Your task to perform on an android device: Open Google Maps Image 0: 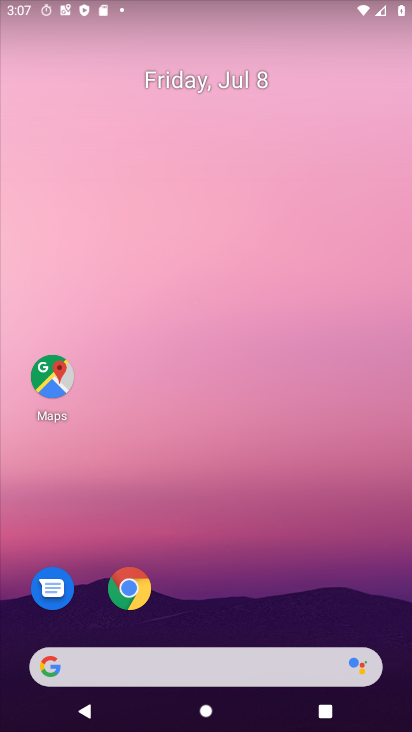
Step 0: press home button
Your task to perform on an android device: Open Google Maps Image 1: 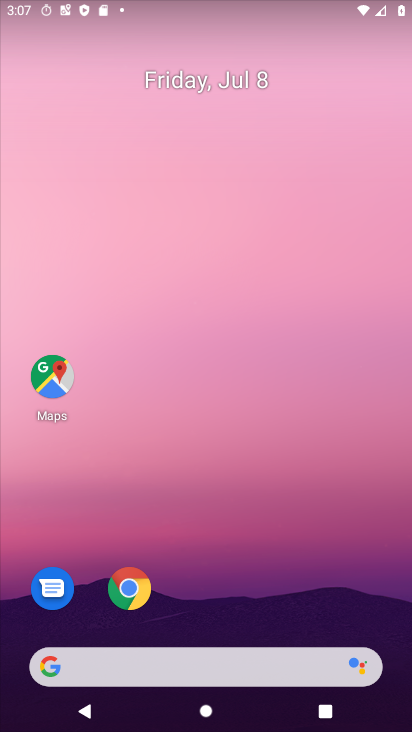
Step 1: click (58, 377)
Your task to perform on an android device: Open Google Maps Image 2: 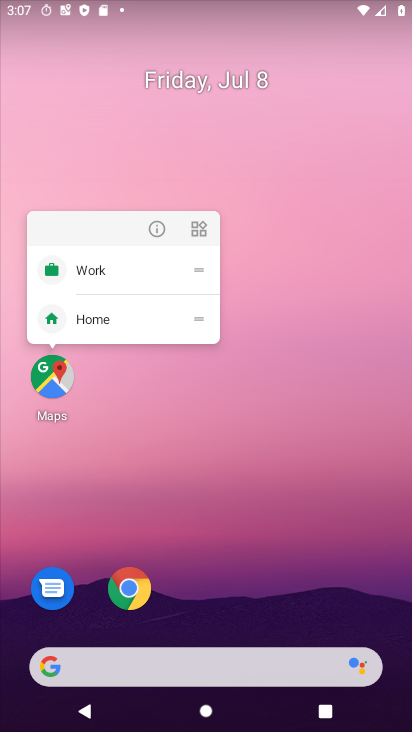
Step 2: click (60, 380)
Your task to perform on an android device: Open Google Maps Image 3: 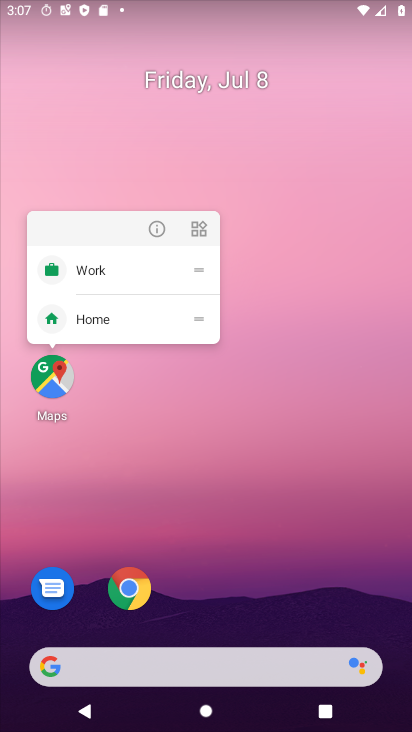
Step 3: click (60, 379)
Your task to perform on an android device: Open Google Maps Image 4: 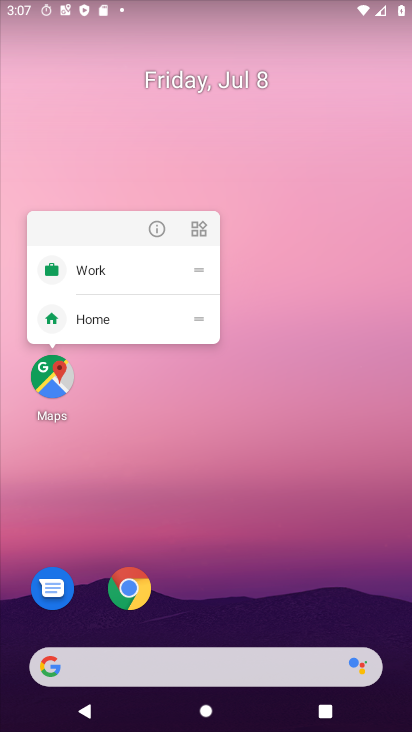
Step 4: click (52, 383)
Your task to perform on an android device: Open Google Maps Image 5: 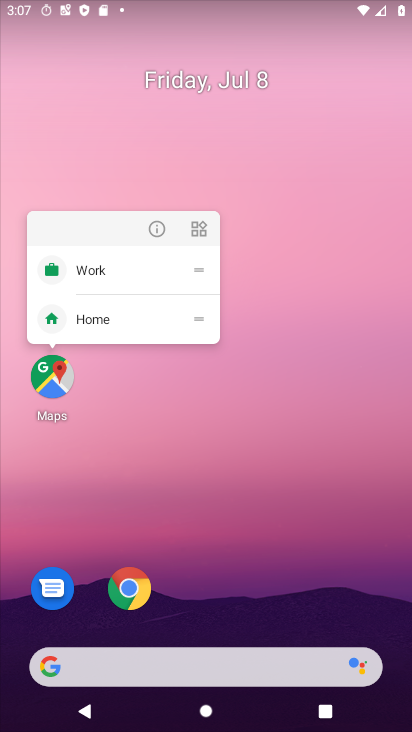
Step 5: click (210, 602)
Your task to perform on an android device: Open Google Maps Image 6: 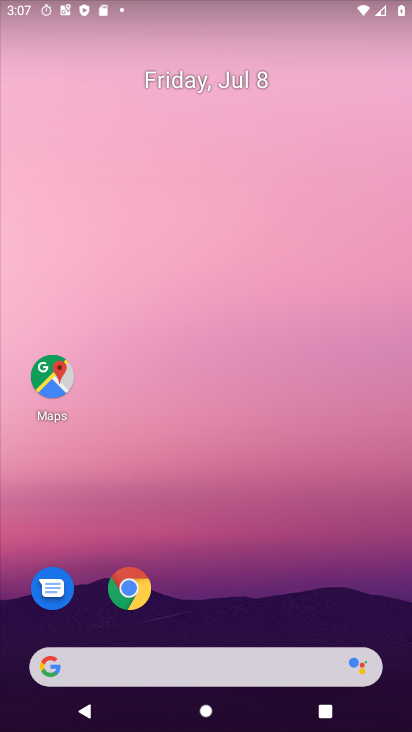
Step 6: drag from (266, 589) to (269, 24)
Your task to perform on an android device: Open Google Maps Image 7: 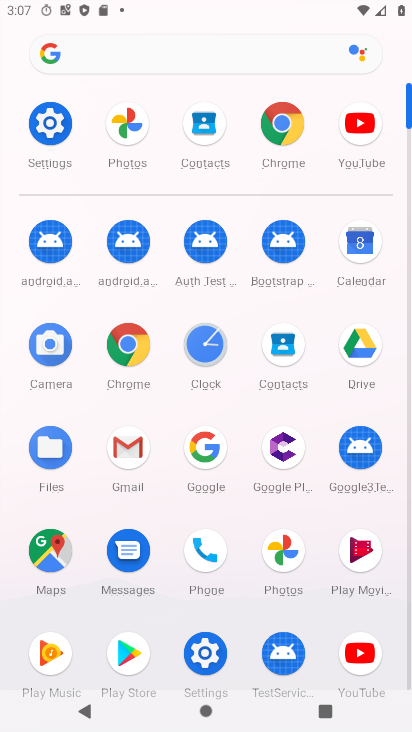
Step 7: click (61, 557)
Your task to perform on an android device: Open Google Maps Image 8: 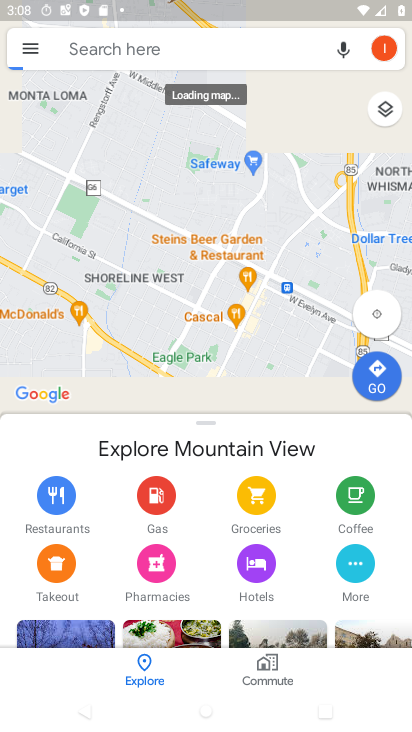
Step 8: task complete